Your task to perform on an android device: install app "DuckDuckGo Privacy Browser" Image 0: 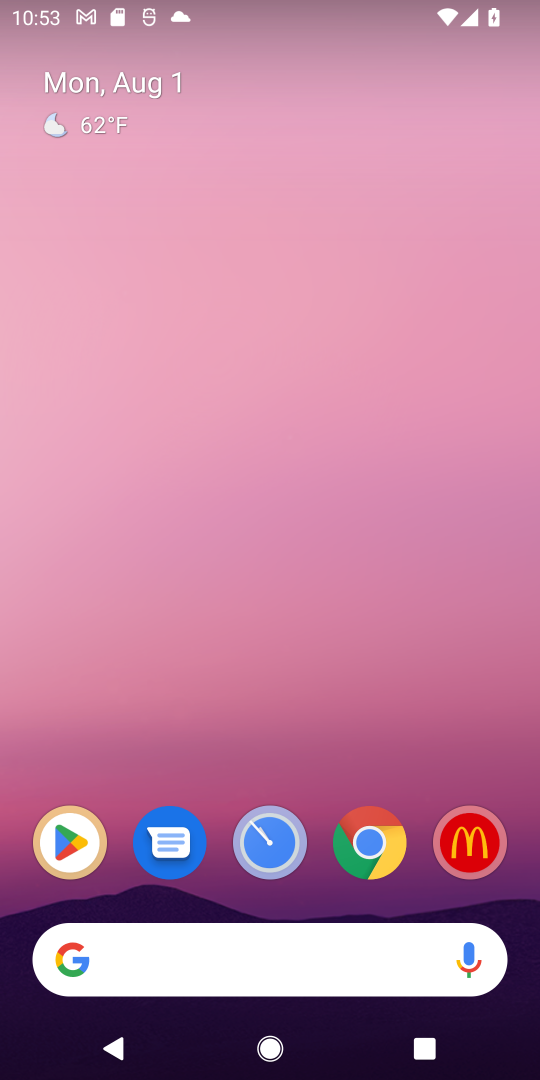
Step 0: click (59, 848)
Your task to perform on an android device: install app "DuckDuckGo Privacy Browser" Image 1: 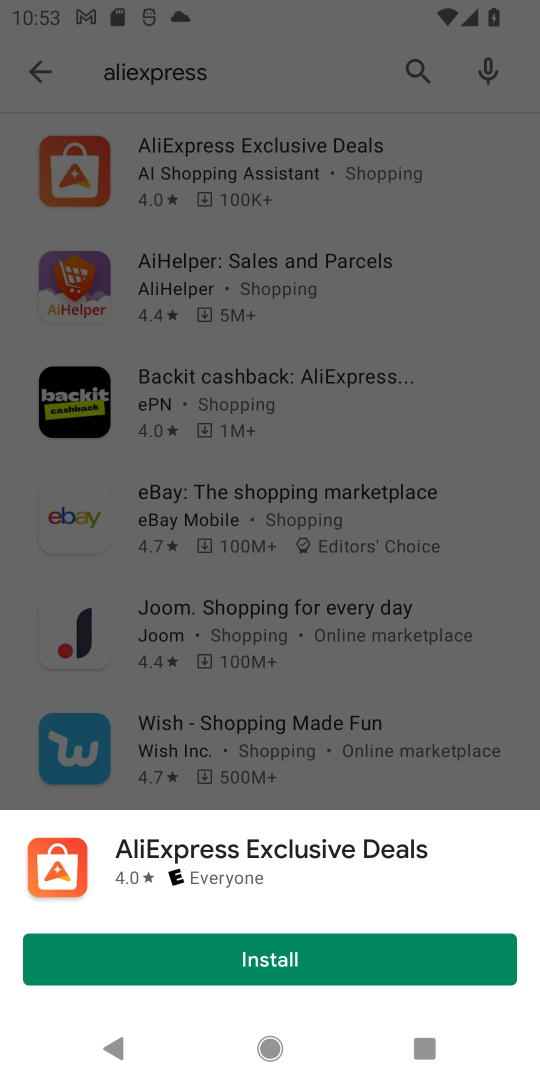
Step 1: click (415, 74)
Your task to perform on an android device: install app "DuckDuckGo Privacy Browser" Image 2: 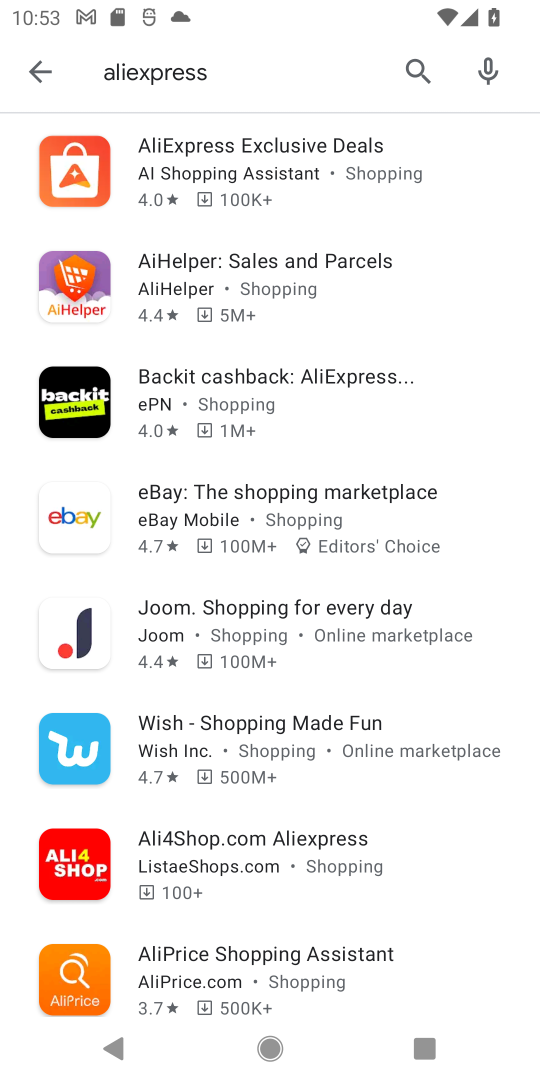
Step 2: click (418, 82)
Your task to perform on an android device: install app "DuckDuckGo Privacy Browser" Image 3: 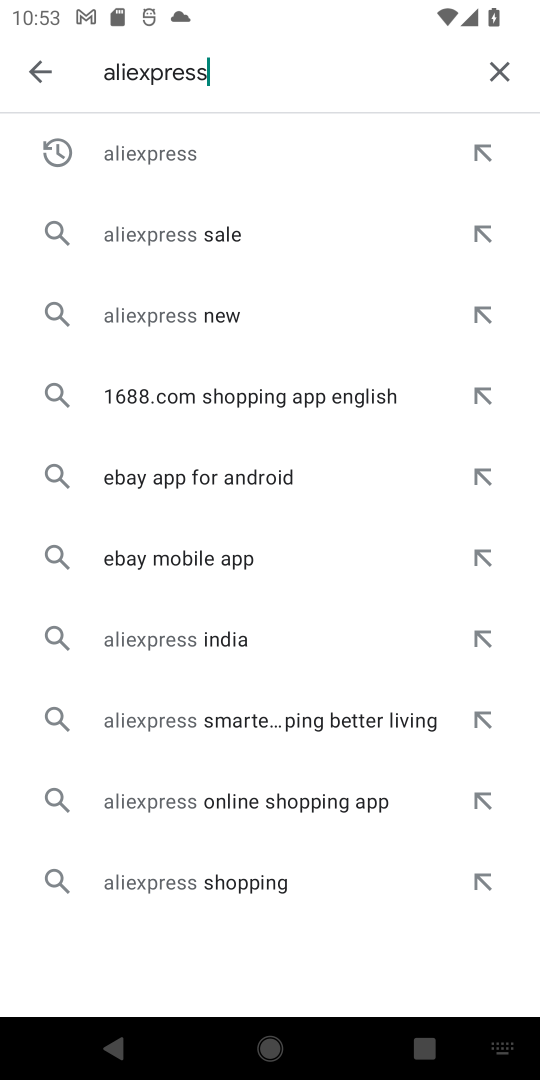
Step 3: click (504, 68)
Your task to perform on an android device: install app "DuckDuckGo Privacy Browser" Image 4: 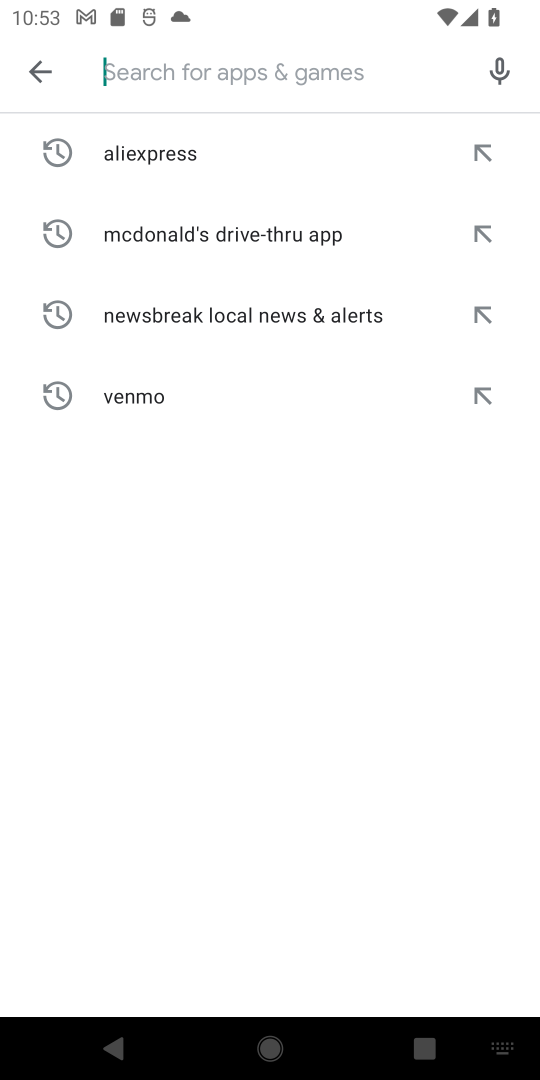
Step 4: click (169, 56)
Your task to perform on an android device: install app "DuckDuckGo Privacy Browser" Image 5: 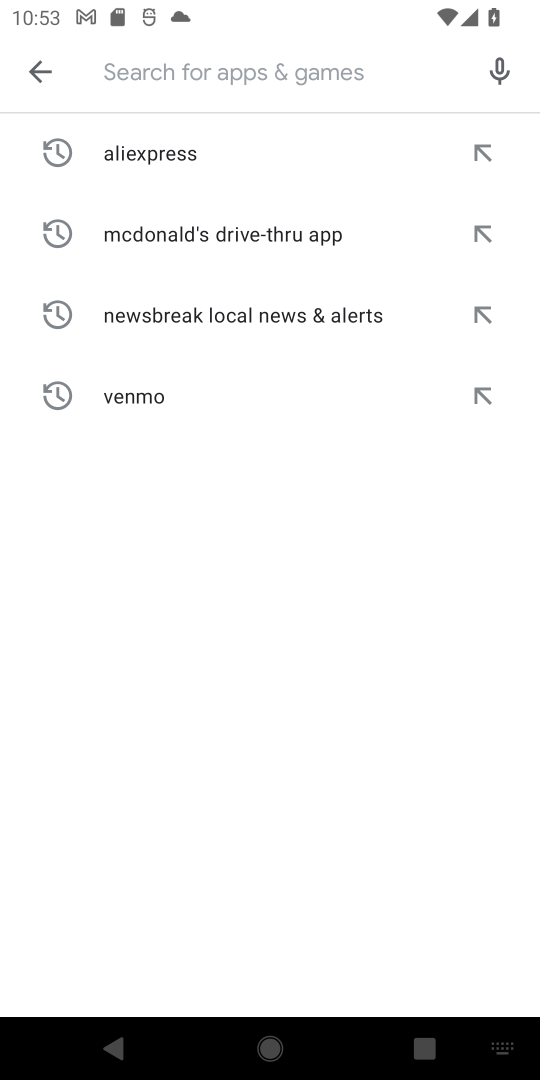
Step 5: type "DuckDuckGo Privacy Browser"
Your task to perform on an android device: install app "DuckDuckGo Privacy Browser" Image 6: 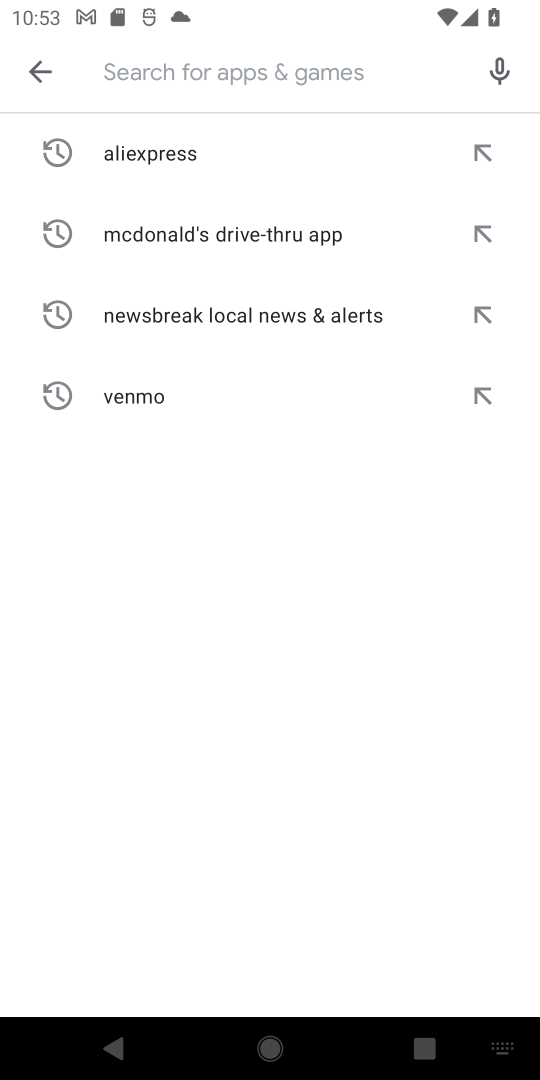
Step 6: click (140, 598)
Your task to perform on an android device: install app "DuckDuckGo Privacy Browser" Image 7: 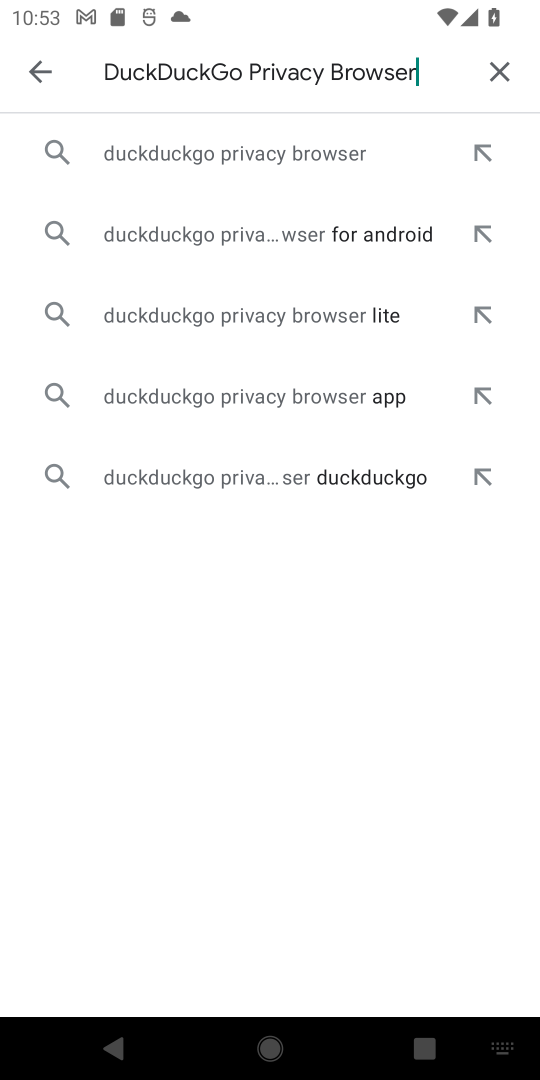
Step 7: click (272, 150)
Your task to perform on an android device: install app "DuckDuckGo Privacy Browser" Image 8: 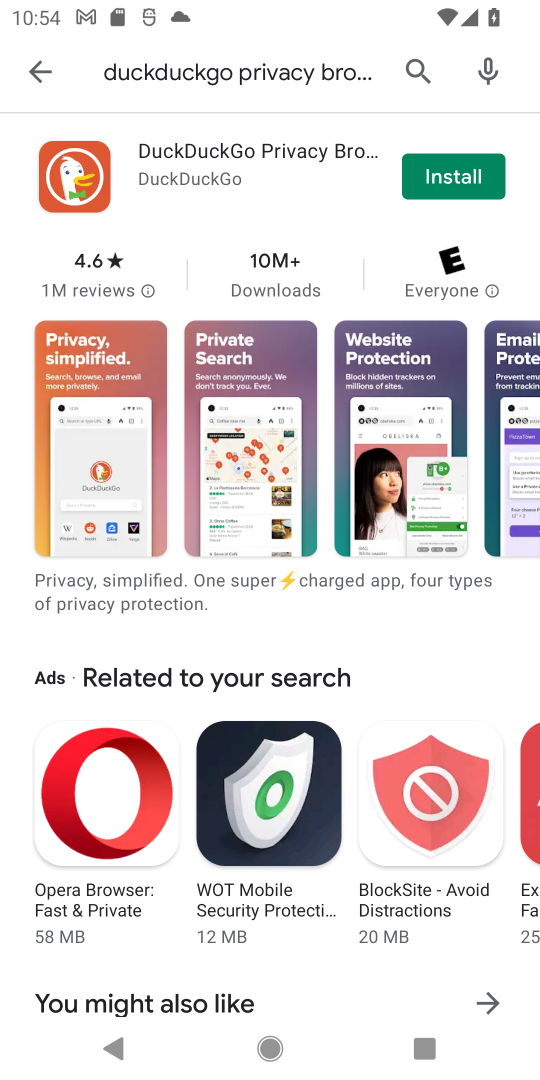
Step 8: click (442, 188)
Your task to perform on an android device: install app "DuckDuckGo Privacy Browser" Image 9: 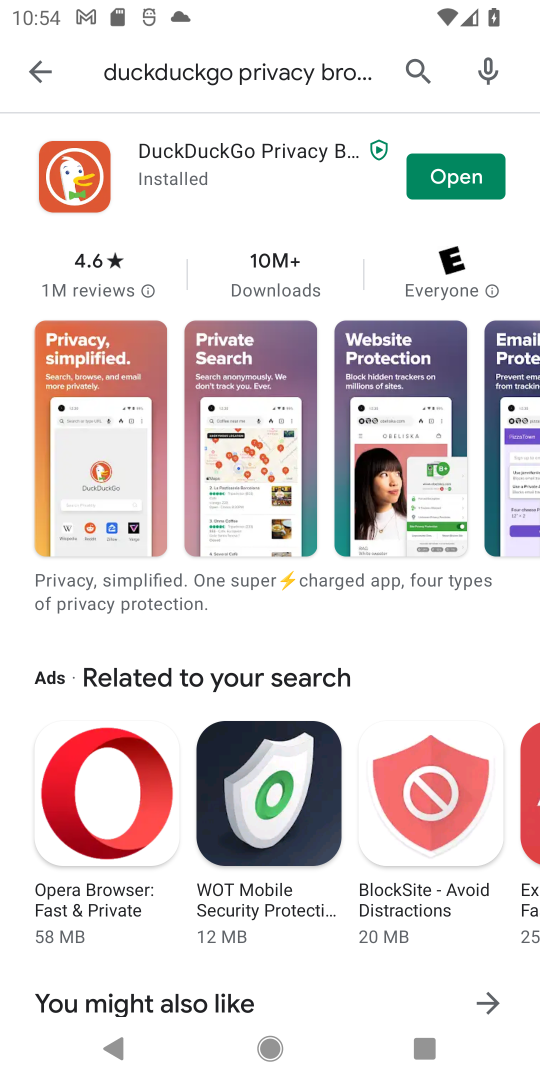
Step 9: click (441, 186)
Your task to perform on an android device: install app "DuckDuckGo Privacy Browser" Image 10: 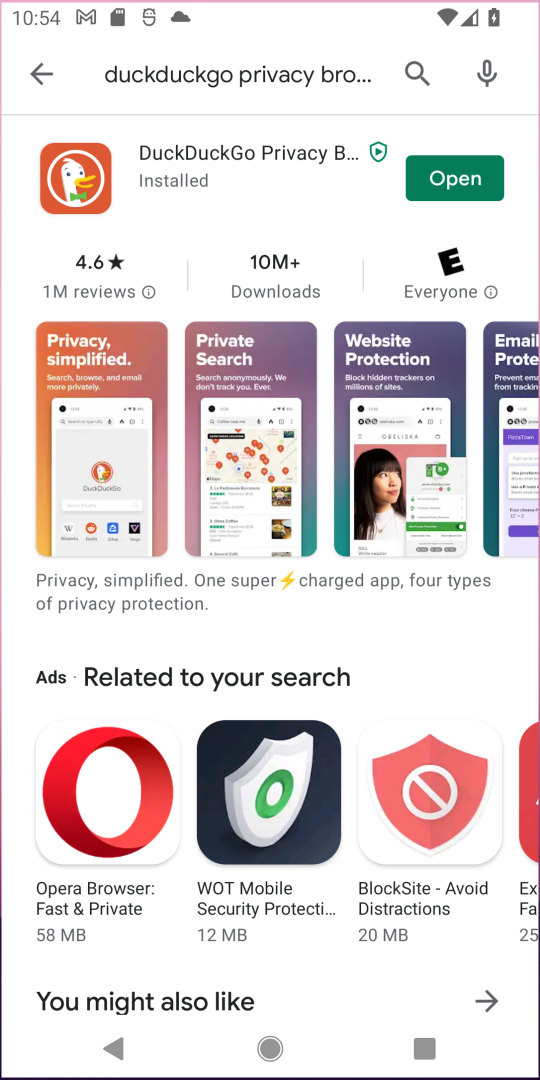
Step 10: task complete